Your task to perform on an android device: turn off wifi Image 0: 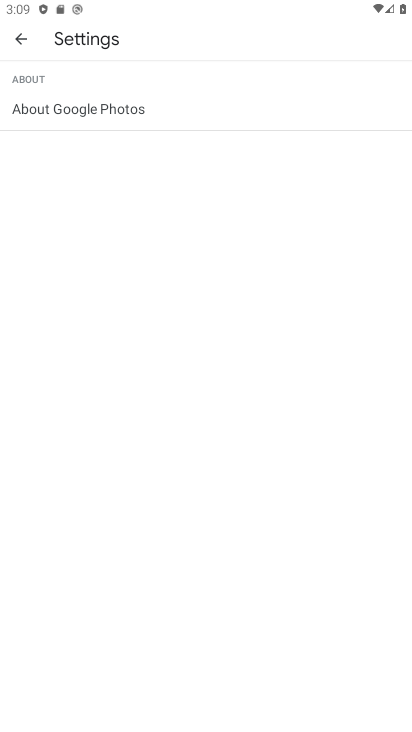
Step 0: press home button
Your task to perform on an android device: turn off wifi Image 1: 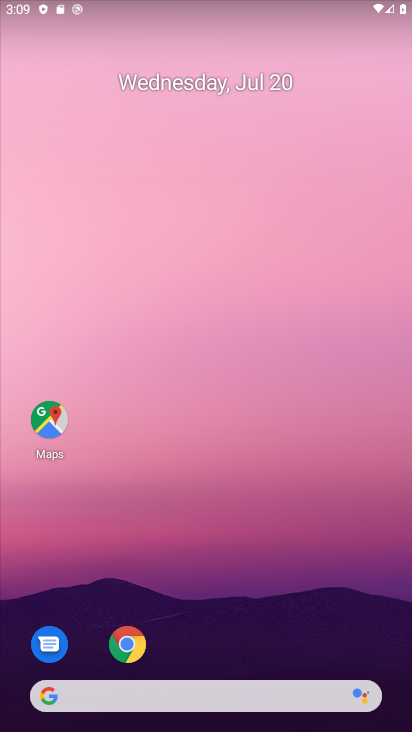
Step 1: drag from (25, 673) to (171, 102)
Your task to perform on an android device: turn off wifi Image 2: 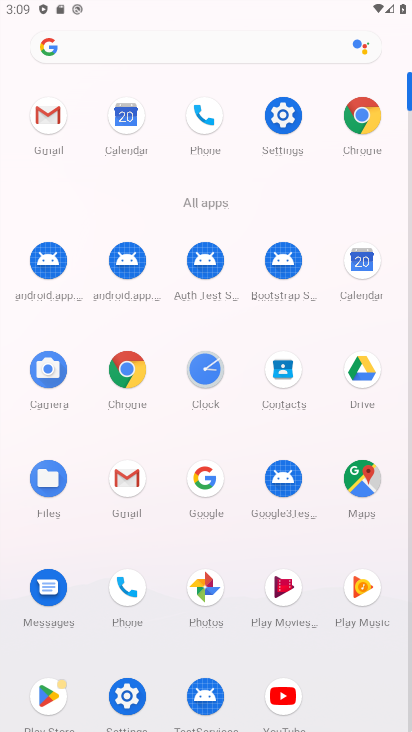
Step 2: click (138, 708)
Your task to perform on an android device: turn off wifi Image 3: 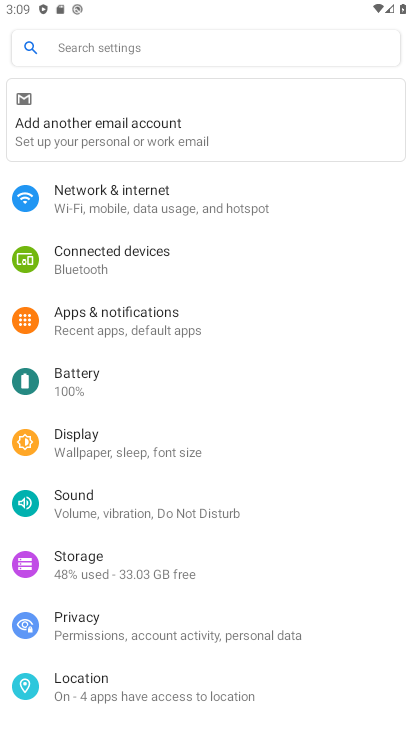
Step 3: click (167, 212)
Your task to perform on an android device: turn off wifi Image 4: 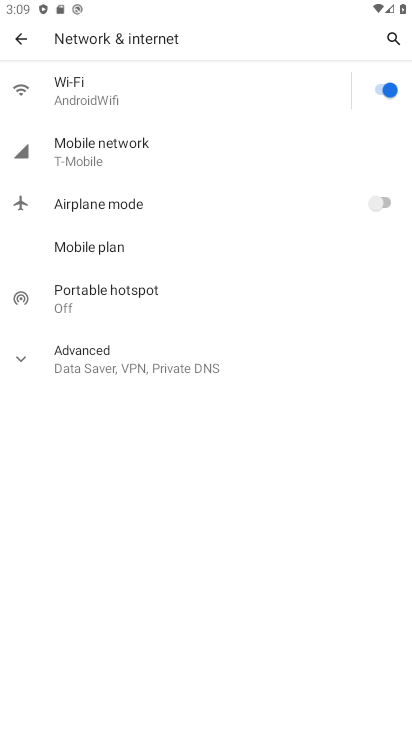
Step 4: click (388, 89)
Your task to perform on an android device: turn off wifi Image 5: 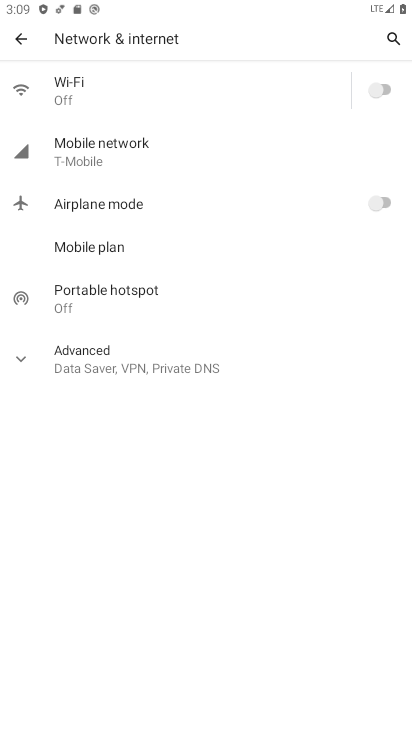
Step 5: task complete